Your task to perform on an android device: What's the weather going to be this weekend? Image 0: 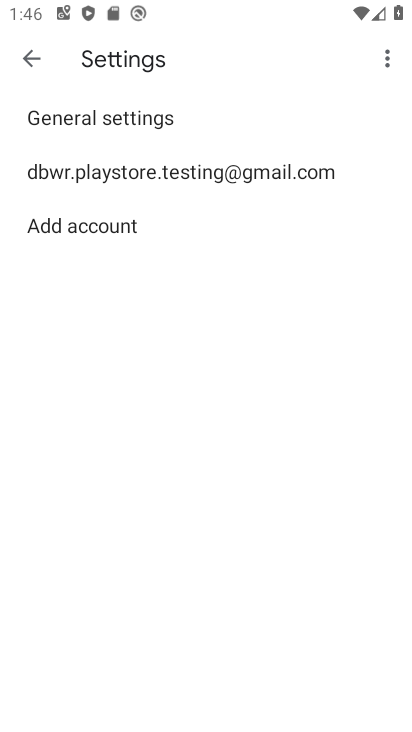
Step 0: press back button
Your task to perform on an android device: What's the weather going to be this weekend? Image 1: 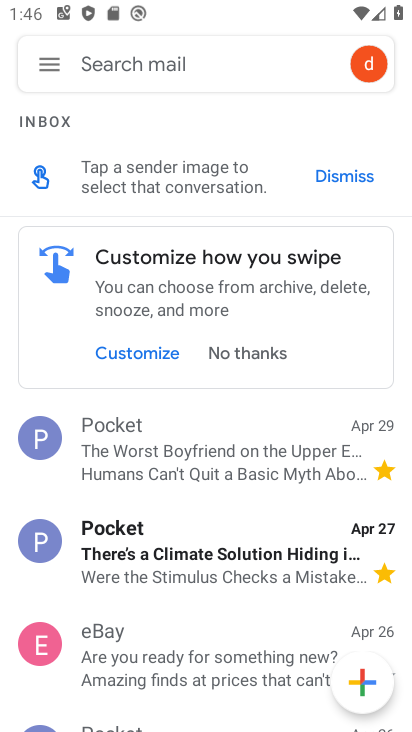
Step 1: press home button
Your task to perform on an android device: What's the weather going to be this weekend? Image 2: 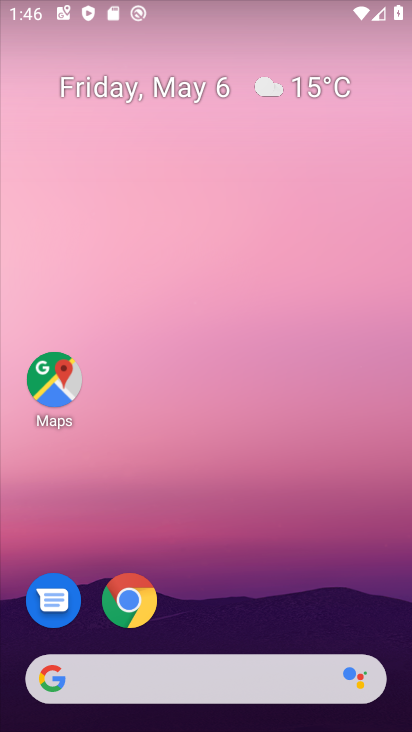
Step 2: drag from (303, 615) to (272, 1)
Your task to perform on an android device: What's the weather going to be this weekend? Image 3: 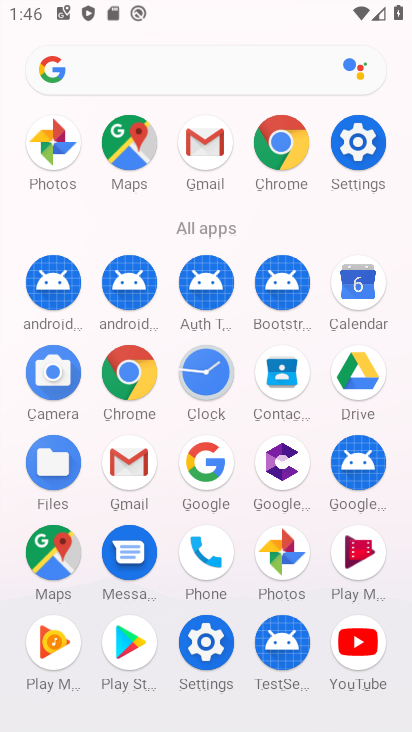
Step 3: click (281, 134)
Your task to perform on an android device: What's the weather going to be this weekend? Image 4: 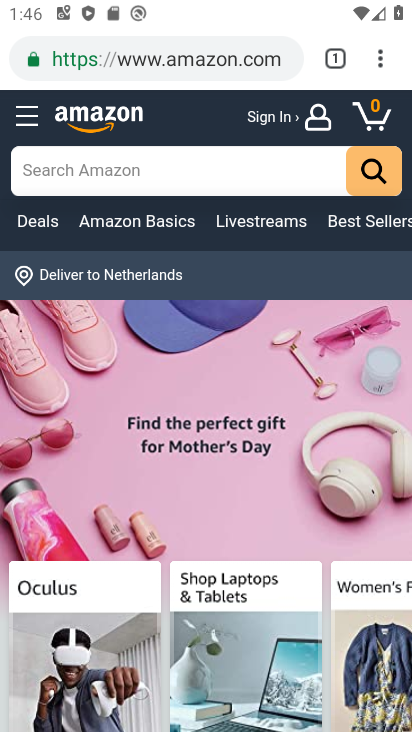
Step 4: click (199, 63)
Your task to perform on an android device: What's the weather going to be this weekend? Image 5: 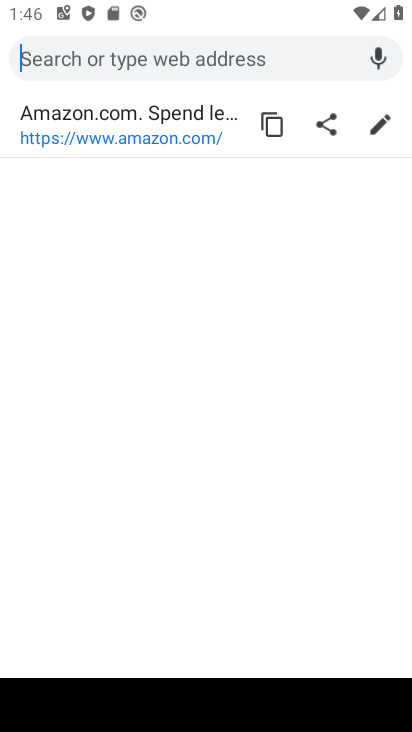
Step 5: type "What's the weather going to be this weekend?"
Your task to perform on an android device: What's the weather going to be this weekend? Image 6: 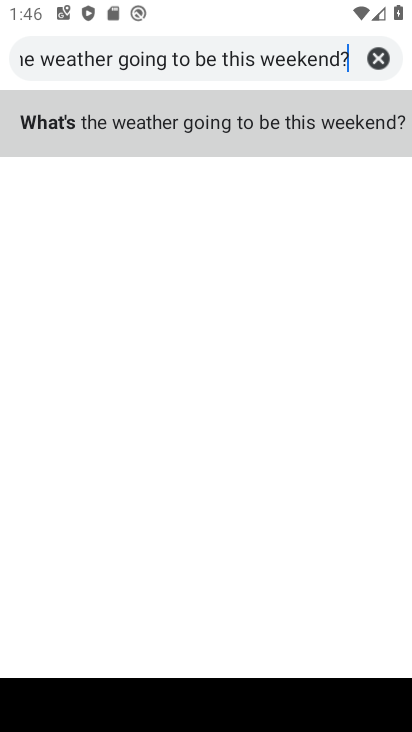
Step 6: type ""
Your task to perform on an android device: What's the weather going to be this weekend? Image 7: 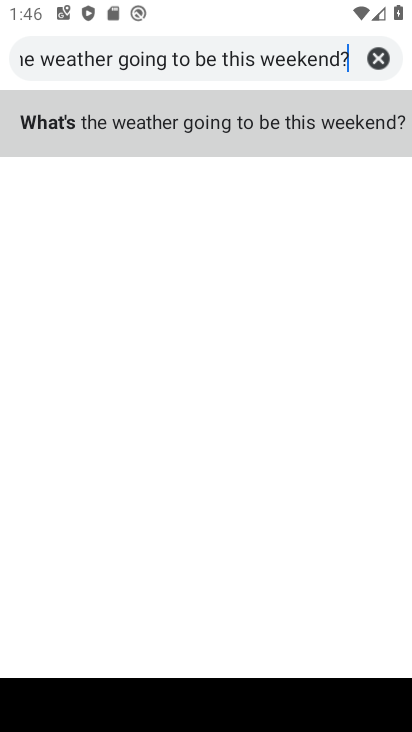
Step 7: click (194, 134)
Your task to perform on an android device: What's the weather going to be this weekend? Image 8: 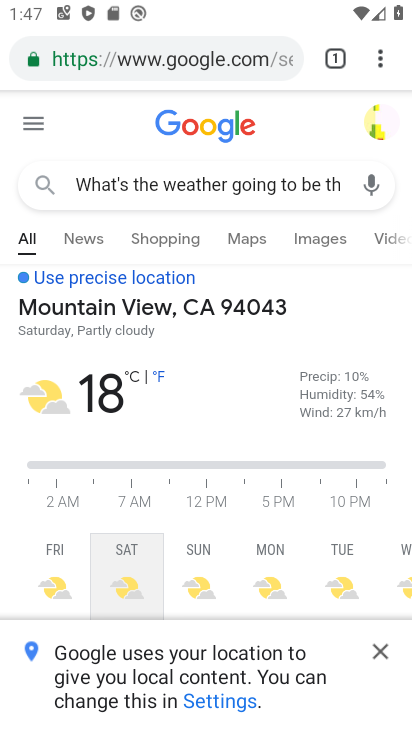
Step 8: task complete